Your task to perform on an android device: change the clock style Image 0: 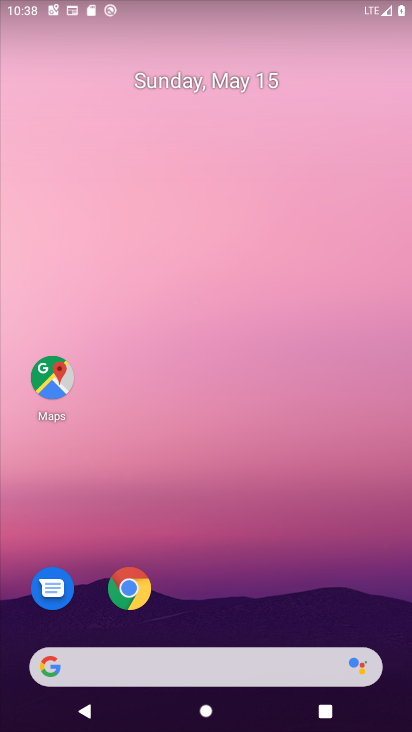
Step 0: drag from (194, 600) to (266, 75)
Your task to perform on an android device: change the clock style Image 1: 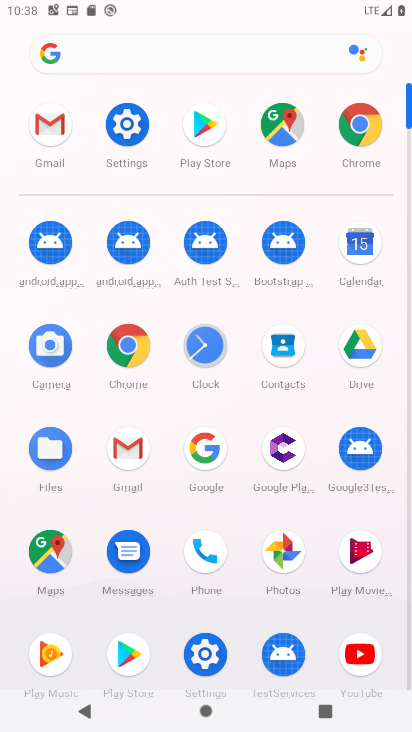
Step 1: click (204, 359)
Your task to perform on an android device: change the clock style Image 2: 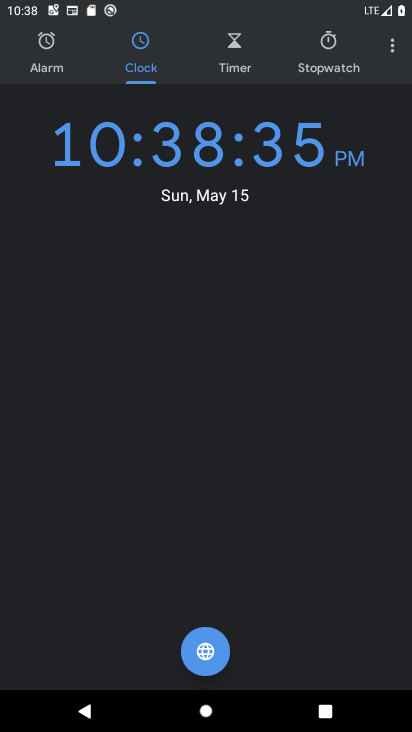
Step 2: click (394, 44)
Your task to perform on an android device: change the clock style Image 3: 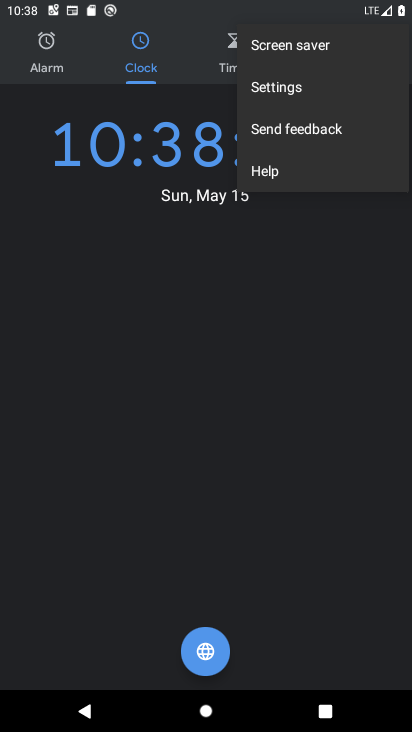
Step 3: click (268, 80)
Your task to perform on an android device: change the clock style Image 4: 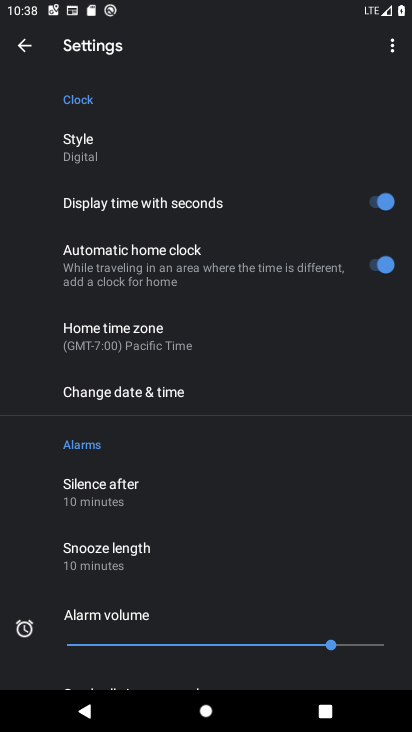
Step 4: click (76, 150)
Your task to perform on an android device: change the clock style Image 5: 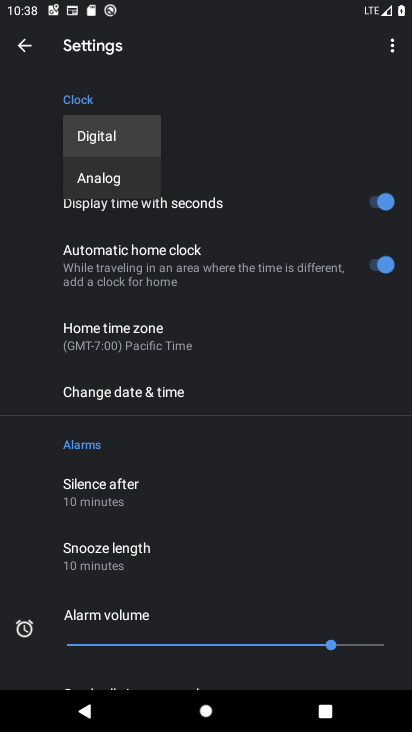
Step 5: click (125, 180)
Your task to perform on an android device: change the clock style Image 6: 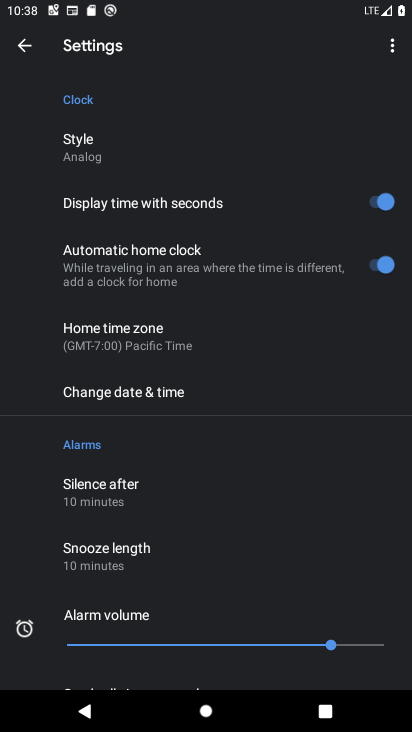
Step 6: task complete